Your task to perform on an android device: empty trash in google photos Image 0: 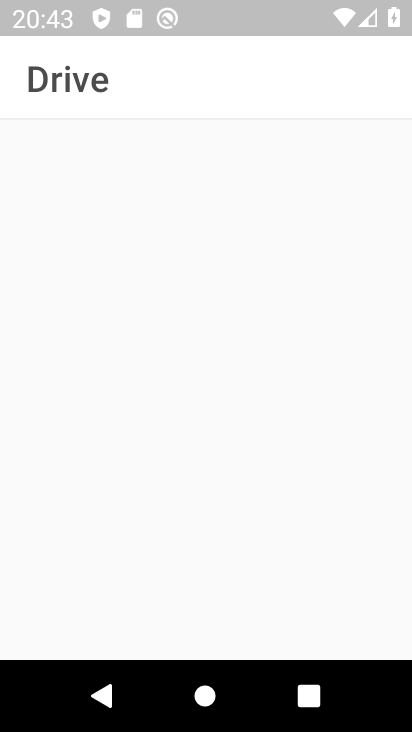
Step 0: press home button
Your task to perform on an android device: empty trash in google photos Image 1: 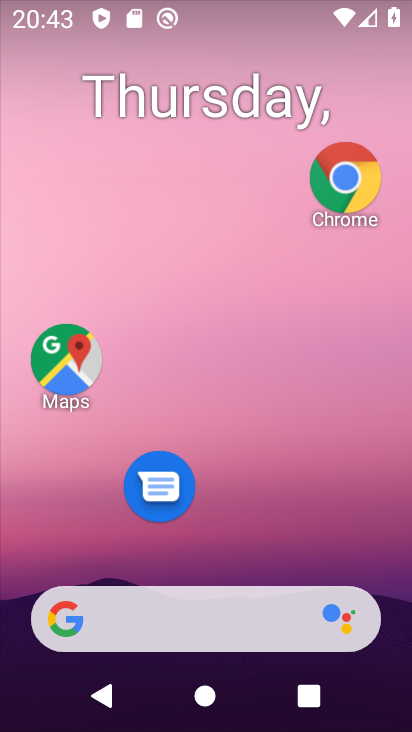
Step 1: drag from (175, 565) to (72, 16)
Your task to perform on an android device: empty trash in google photos Image 2: 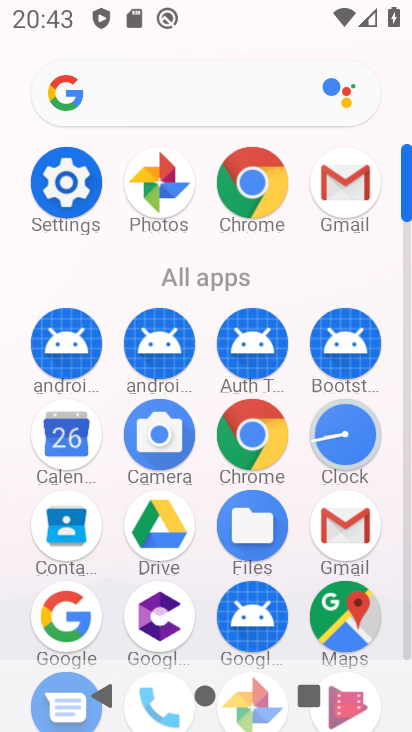
Step 2: click (168, 207)
Your task to perform on an android device: empty trash in google photos Image 3: 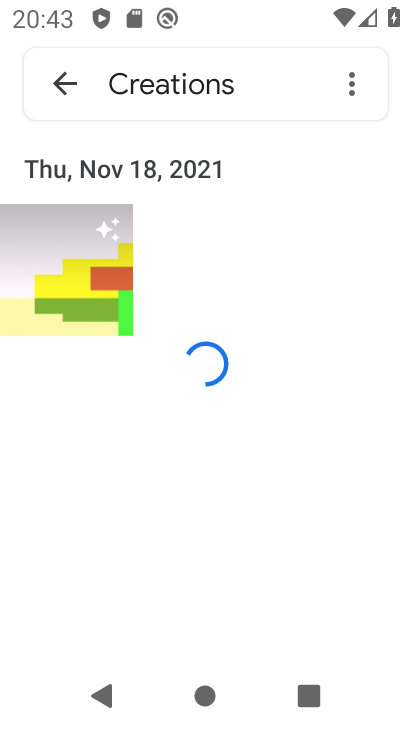
Step 3: click (79, 92)
Your task to perform on an android device: empty trash in google photos Image 4: 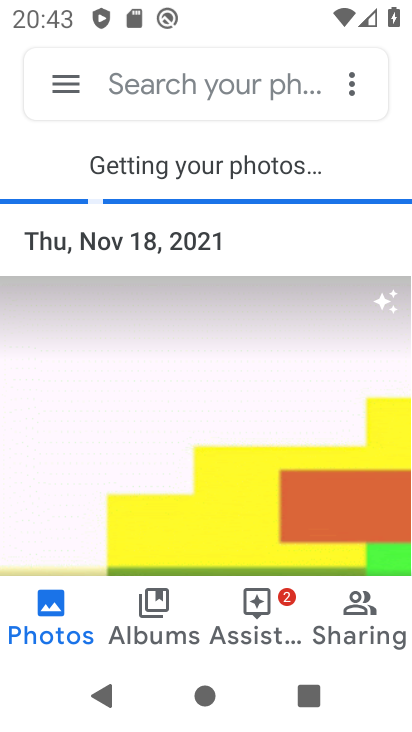
Step 4: click (66, 82)
Your task to perform on an android device: empty trash in google photos Image 5: 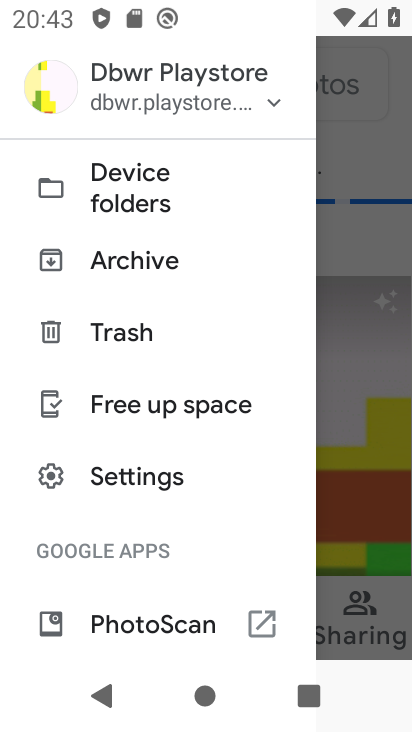
Step 5: click (107, 323)
Your task to perform on an android device: empty trash in google photos Image 6: 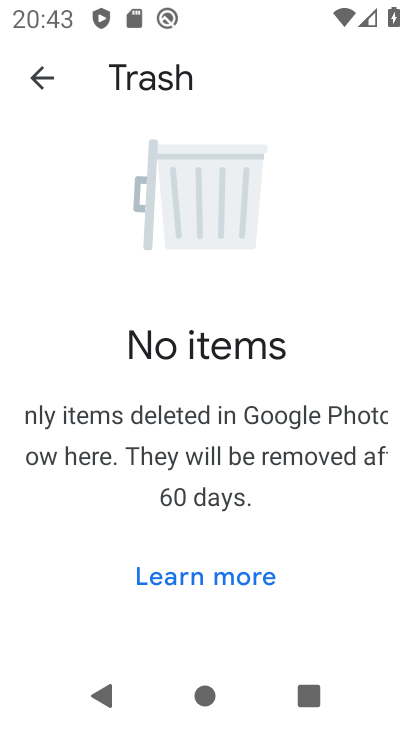
Step 6: task complete